Your task to perform on an android device: add a label to a message in the gmail app Image 0: 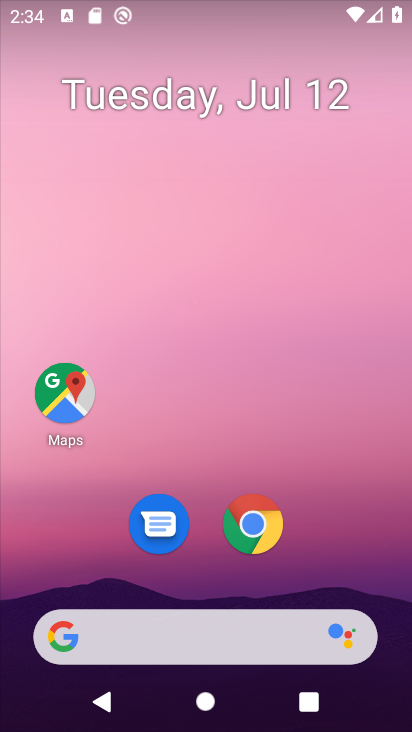
Step 0: drag from (324, 522) to (344, 5)
Your task to perform on an android device: add a label to a message in the gmail app Image 1: 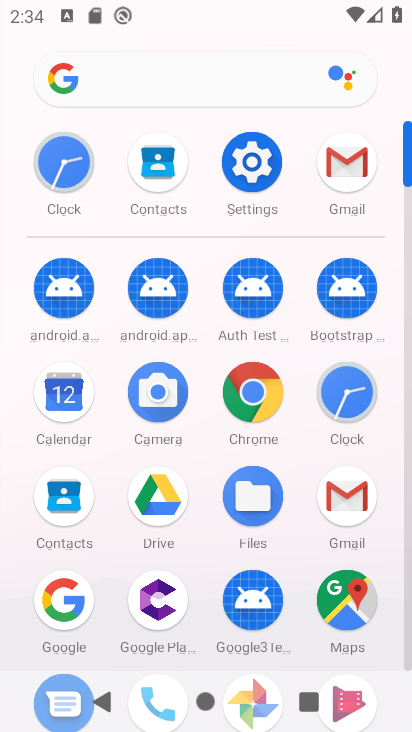
Step 1: click (342, 173)
Your task to perform on an android device: add a label to a message in the gmail app Image 2: 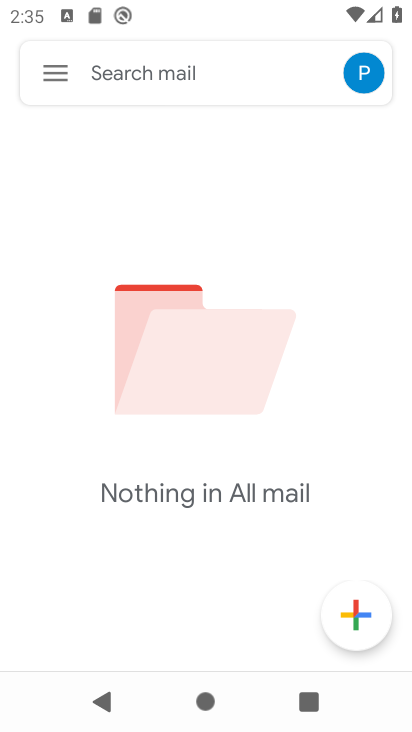
Step 2: task complete